Your task to perform on an android device: Open settings on Google Maps Image 0: 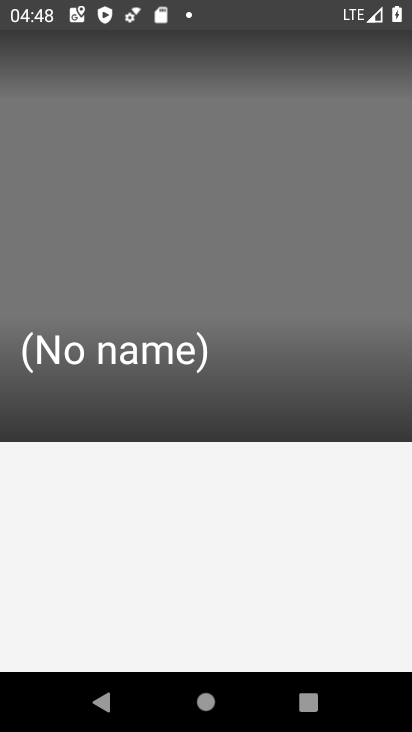
Step 0: drag from (240, 722) to (240, 660)
Your task to perform on an android device: Open settings on Google Maps Image 1: 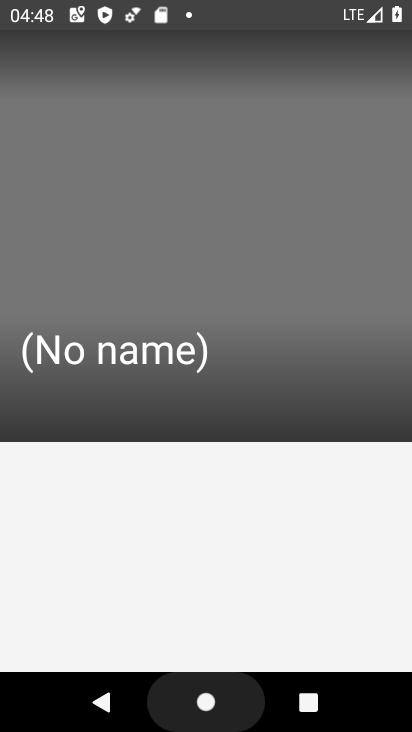
Step 1: drag from (239, 229) to (239, 88)
Your task to perform on an android device: Open settings on Google Maps Image 2: 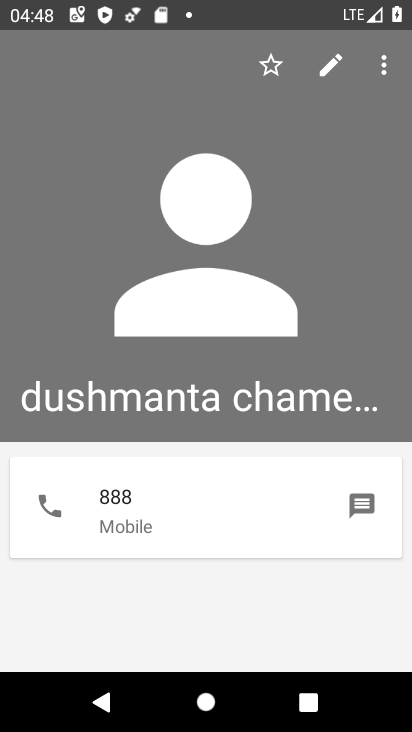
Step 2: press home button
Your task to perform on an android device: Open settings on Google Maps Image 3: 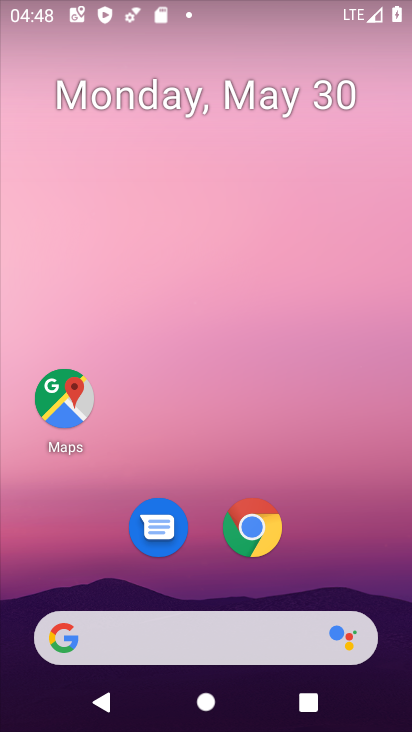
Step 3: drag from (231, 724) to (234, 673)
Your task to perform on an android device: Open settings on Google Maps Image 4: 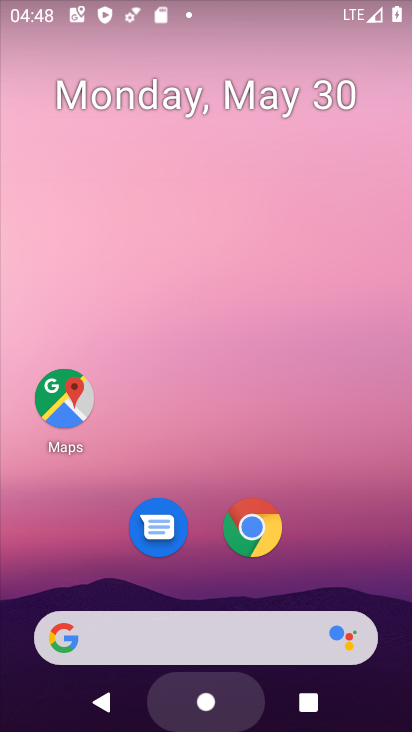
Step 4: drag from (235, 510) to (235, 433)
Your task to perform on an android device: Open settings on Google Maps Image 5: 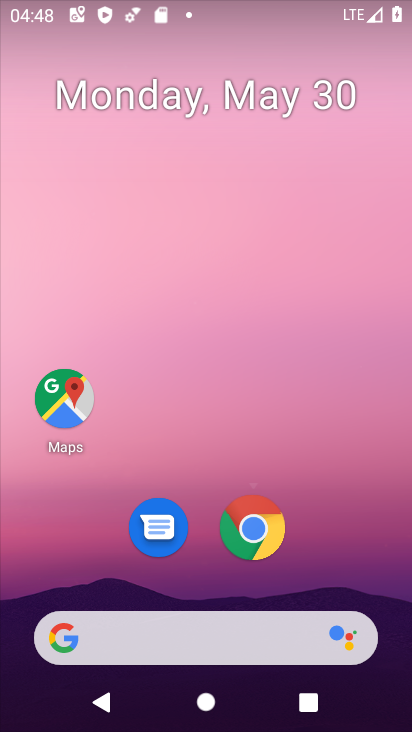
Step 5: click (217, 72)
Your task to perform on an android device: Open settings on Google Maps Image 6: 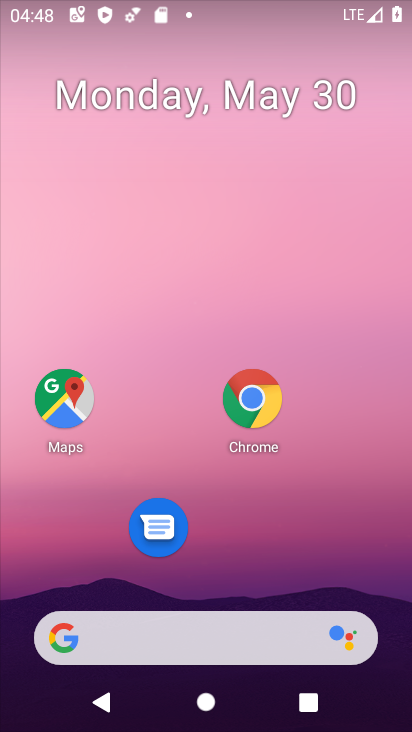
Step 6: drag from (235, 718) to (235, 642)
Your task to perform on an android device: Open settings on Google Maps Image 7: 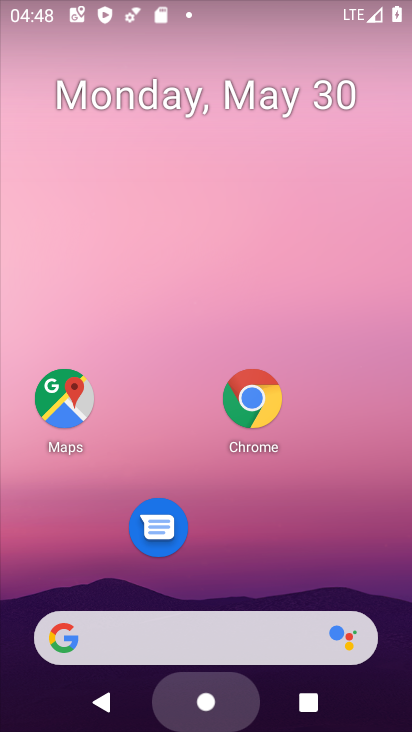
Step 7: drag from (248, 328) to (254, 120)
Your task to perform on an android device: Open settings on Google Maps Image 8: 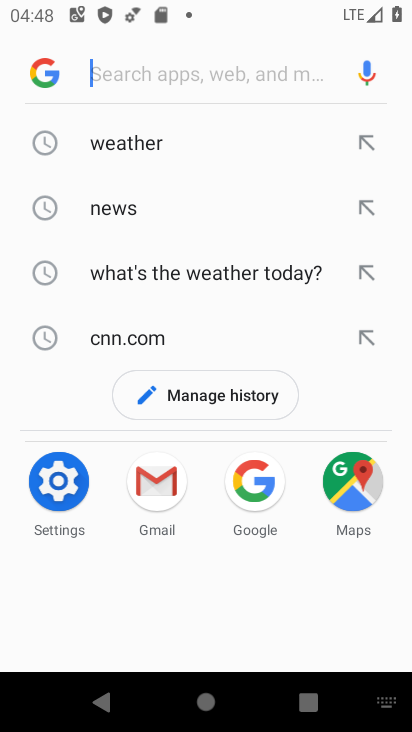
Step 8: press home button
Your task to perform on an android device: Open settings on Google Maps Image 9: 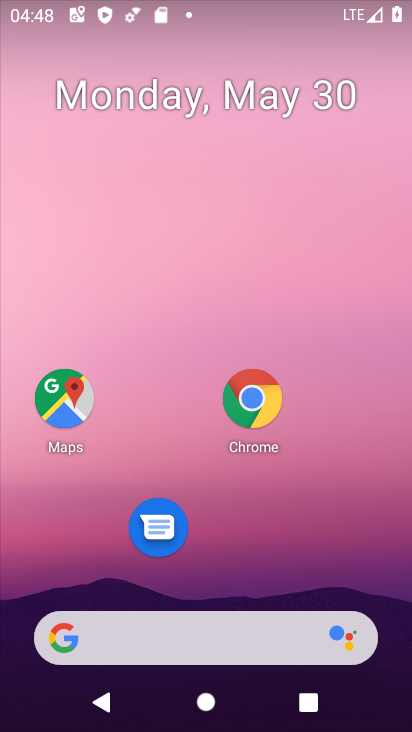
Step 9: drag from (232, 726) to (239, 670)
Your task to perform on an android device: Open settings on Google Maps Image 10: 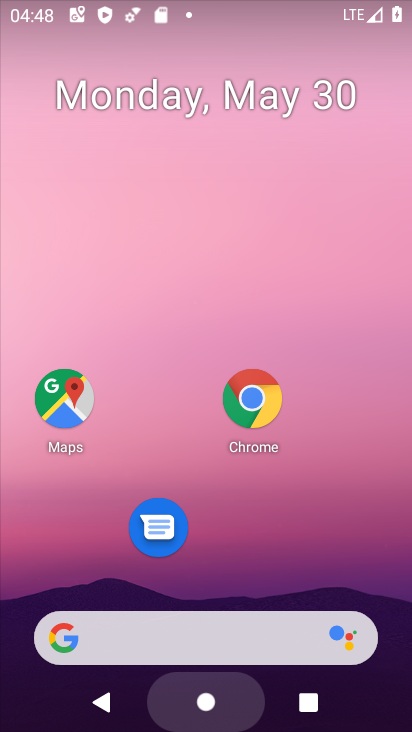
Step 10: drag from (240, 574) to (240, 42)
Your task to perform on an android device: Open settings on Google Maps Image 11: 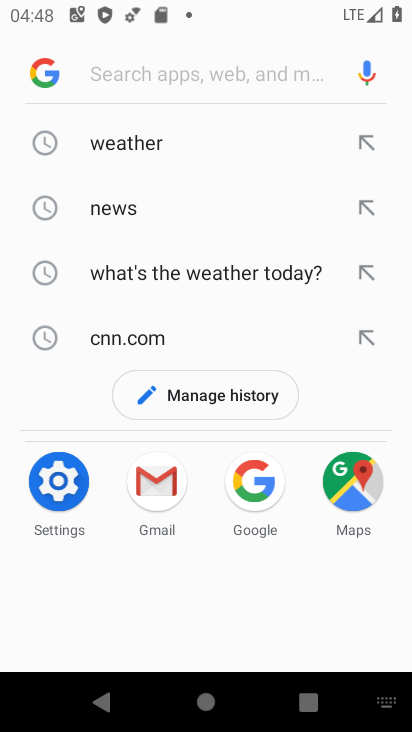
Step 11: press home button
Your task to perform on an android device: Open settings on Google Maps Image 12: 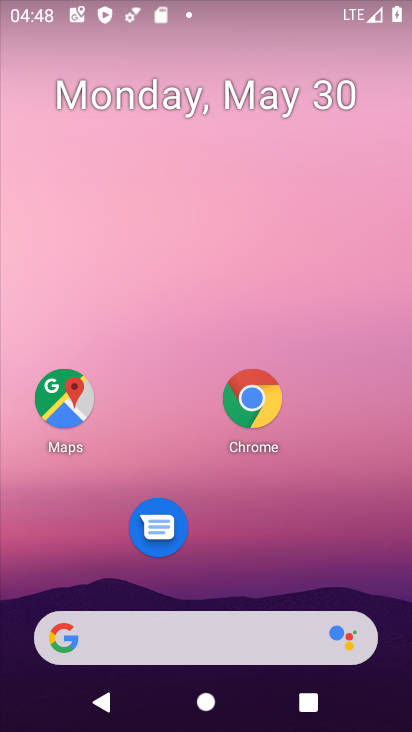
Step 12: drag from (223, 719) to (228, 593)
Your task to perform on an android device: Open settings on Google Maps Image 13: 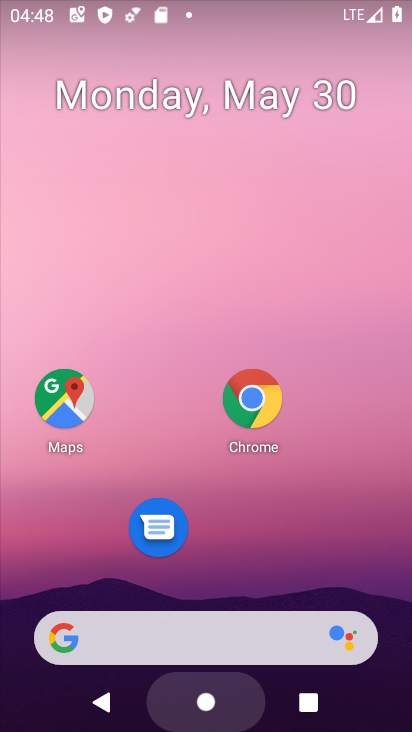
Step 13: drag from (237, 212) to (239, 7)
Your task to perform on an android device: Open settings on Google Maps Image 14: 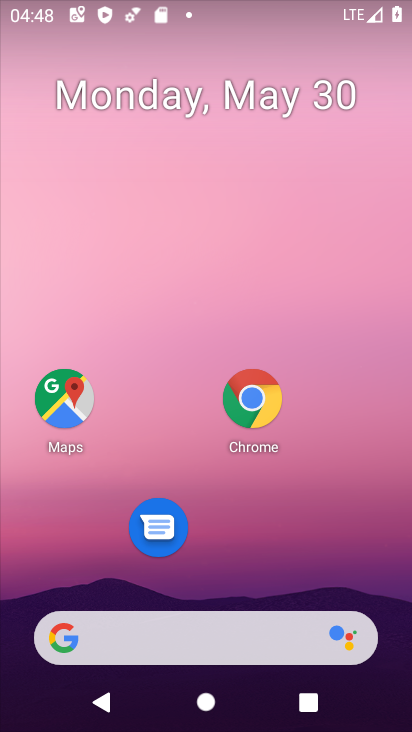
Step 14: drag from (229, 721) to (217, 55)
Your task to perform on an android device: Open settings on Google Maps Image 15: 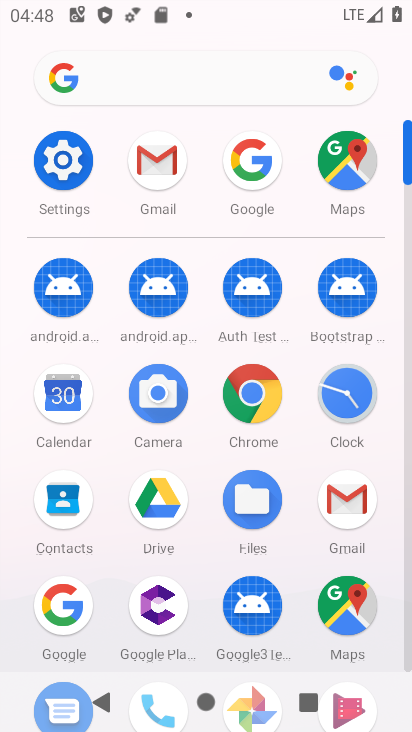
Step 15: click (349, 605)
Your task to perform on an android device: Open settings on Google Maps Image 16: 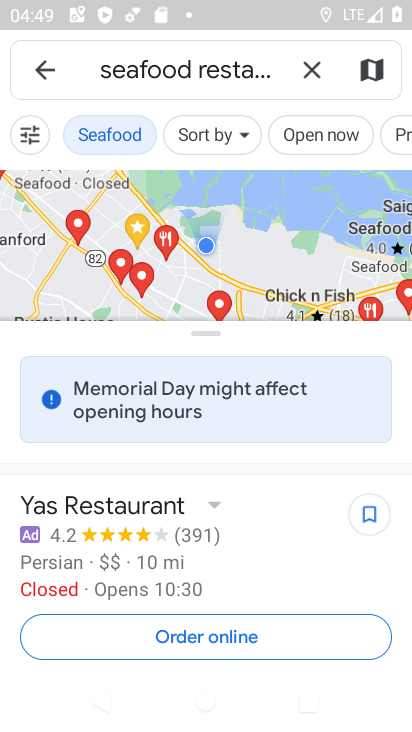
Step 16: click (48, 66)
Your task to perform on an android device: Open settings on Google Maps Image 17: 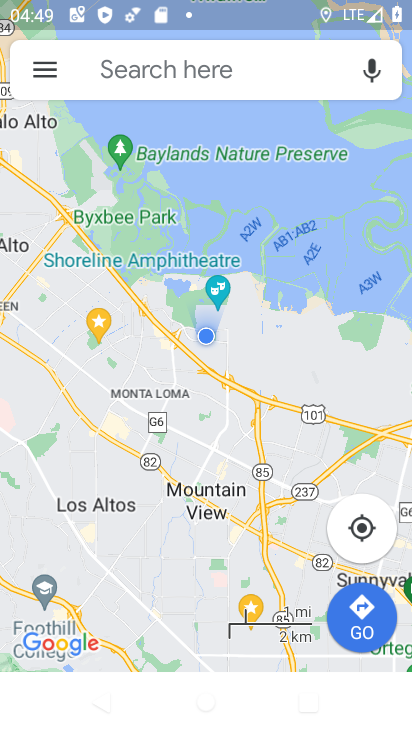
Step 17: click (48, 66)
Your task to perform on an android device: Open settings on Google Maps Image 18: 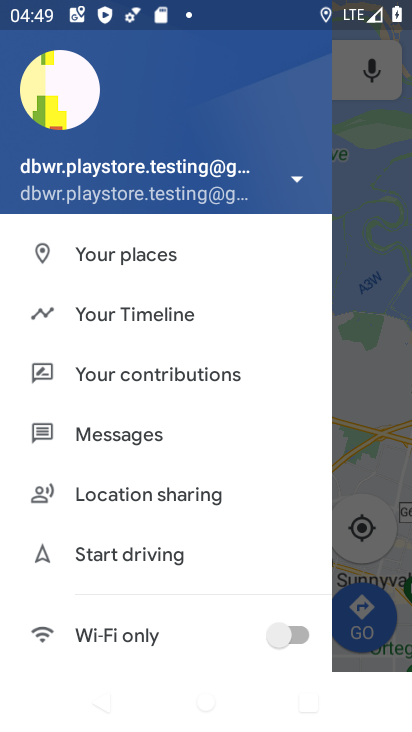
Step 18: drag from (147, 605) to (145, 338)
Your task to perform on an android device: Open settings on Google Maps Image 19: 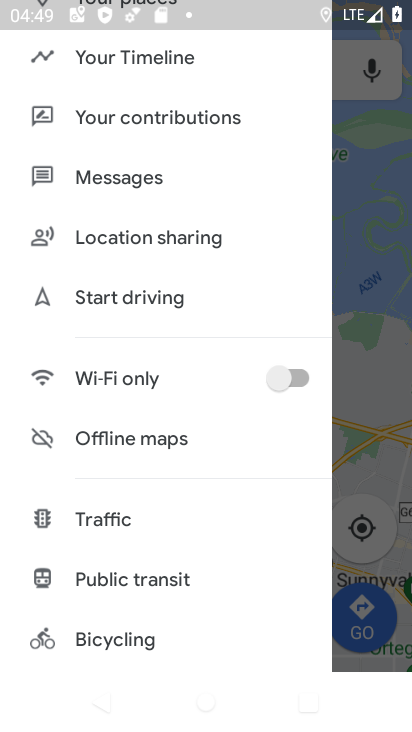
Step 19: drag from (130, 581) to (140, 182)
Your task to perform on an android device: Open settings on Google Maps Image 20: 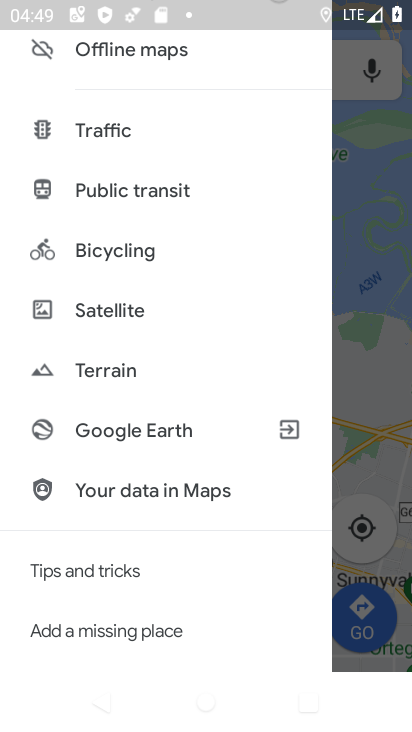
Step 20: drag from (132, 590) to (156, 160)
Your task to perform on an android device: Open settings on Google Maps Image 21: 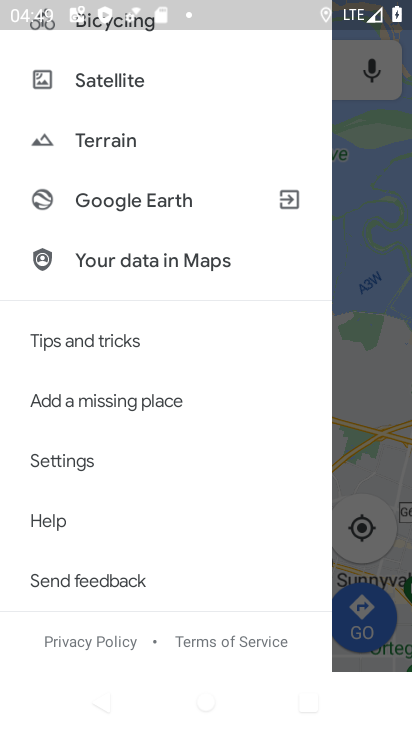
Step 21: click (75, 460)
Your task to perform on an android device: Open settings on Google Maps Image 22: 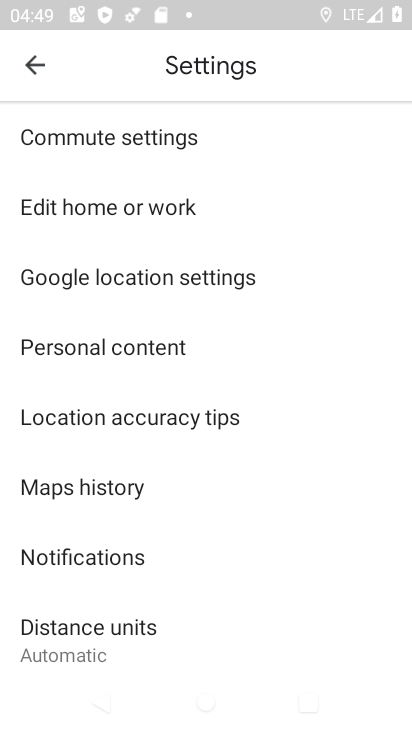
Step 22: task complete